Your task to perform on an android device: Open the gallery Image 0: 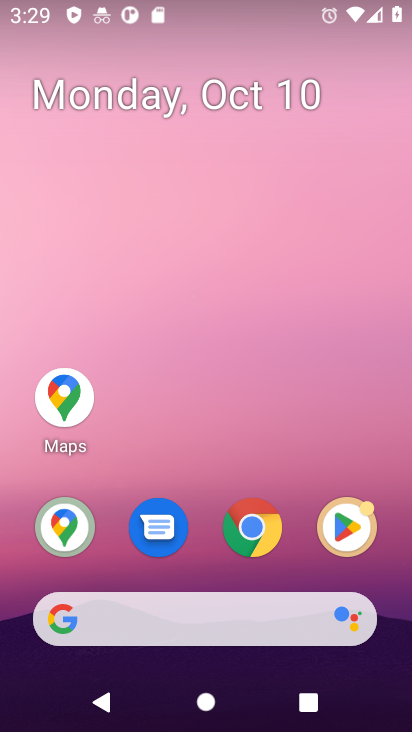
Step 0: drag from (177, 633) to (251, 153)
Your task to perform on an android device: Open the gallery Image 1: 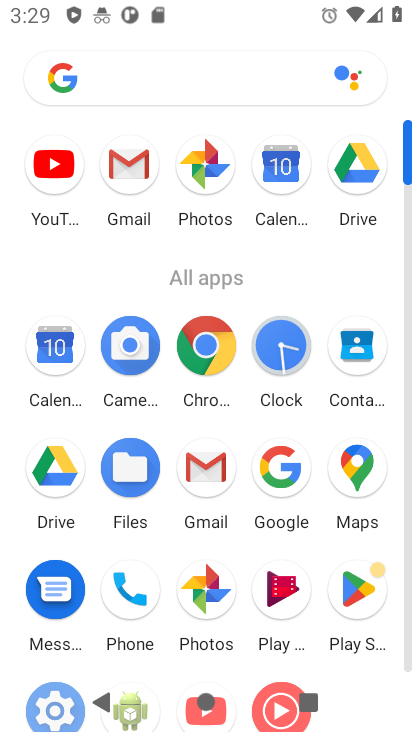
Step 1: click (207, 169)
Your task to perform on an android device: Open the gallery Image 2: 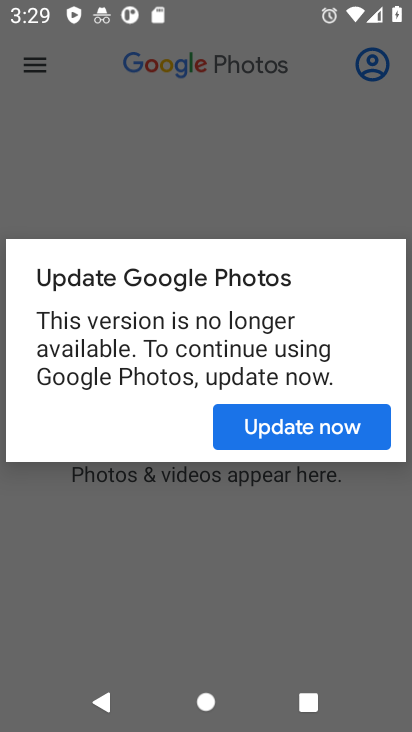
Step 2: click (280, 423)
Your task to perform on an android device: Open the gallery Image 3: 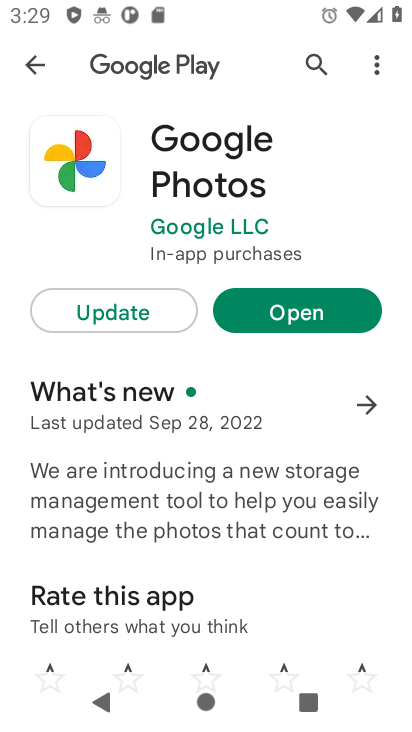
Step 3: click (156, 318)
Your task to perform on an android device: Open the gallery Image 4: 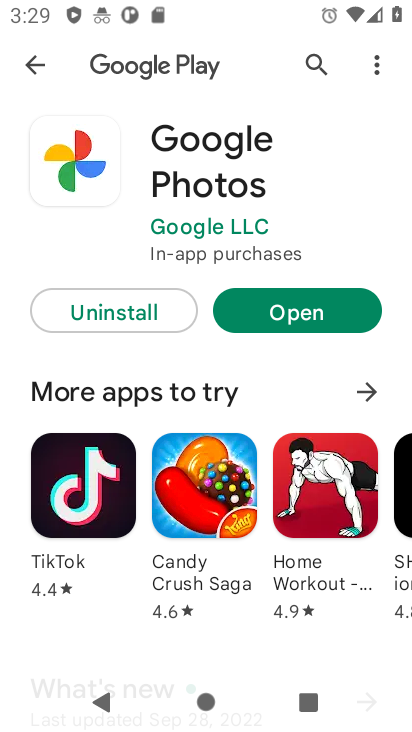
Step 4: click (311, 313)
Your task to perform on an android device: Open the gallery Image 5: 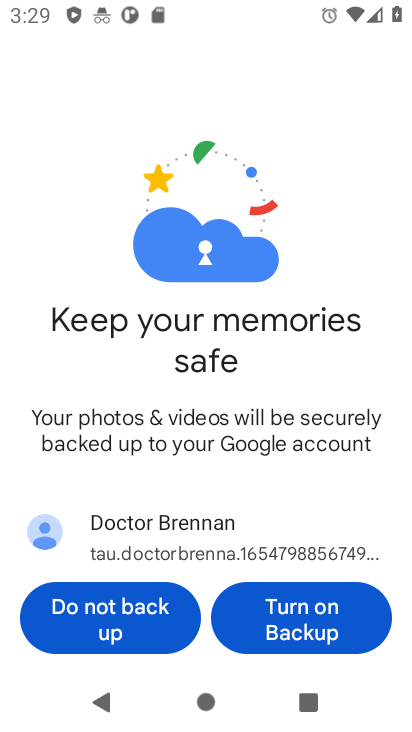
Step 5: click (145, 589)
Your task to perform on an android device: Open the gallery Image 6: 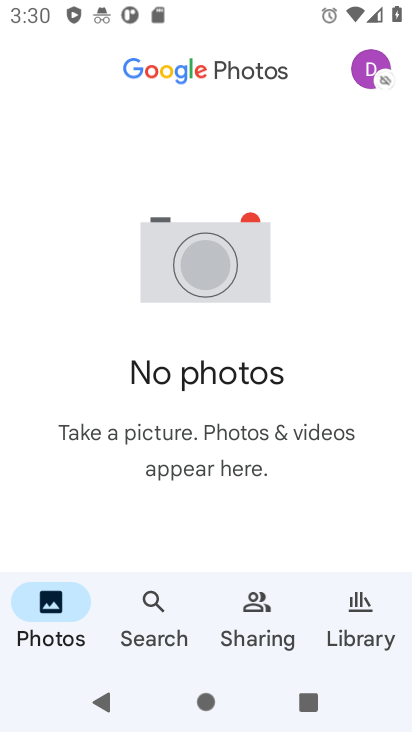
Step 6: task complete